Your task to perform on an android device: What is the news today? Image 0: 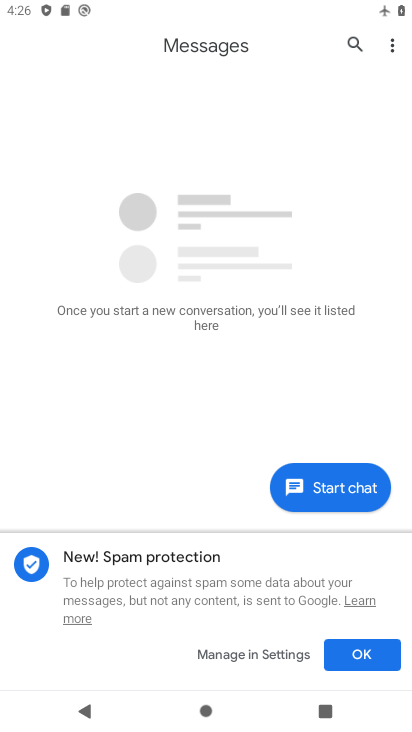
Step 0: press home button
Your task to perform on an android device: What is the news today? Image 1: 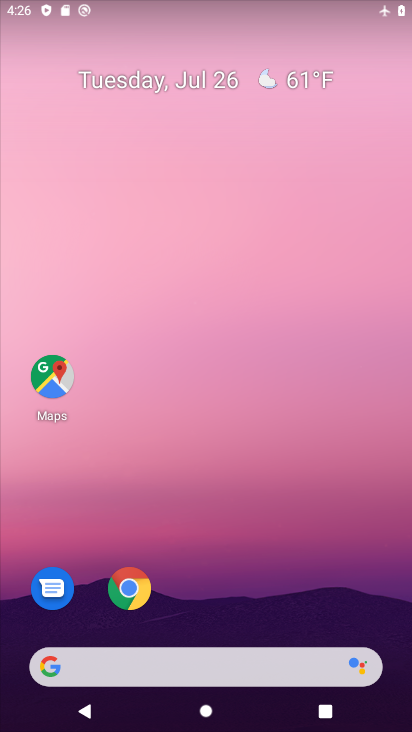
Step 1: drag from (287, 517) to (167, 1)
Your task to perform on an android device: What is the news today? Image 2: 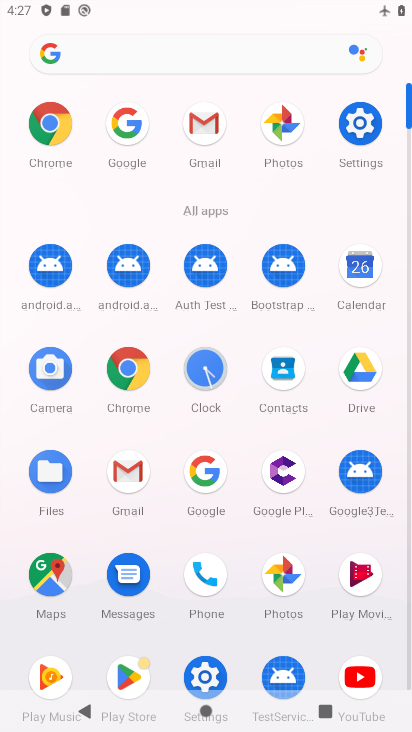
Step 2: click (125, 378)
Your task to perform on an android device: What is the news today? Image 3: 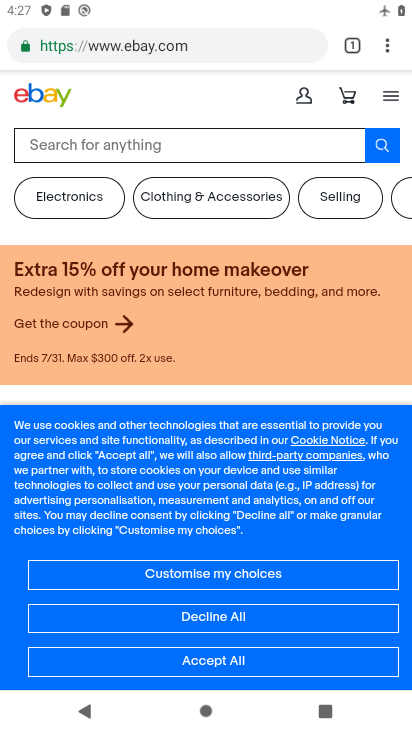
Step 3: task complete